Your task to perform on an android device: Clear the shopping cart on costco. Search for "usb-c" on costco, select the first entry, and add it to the cart. Image 0: 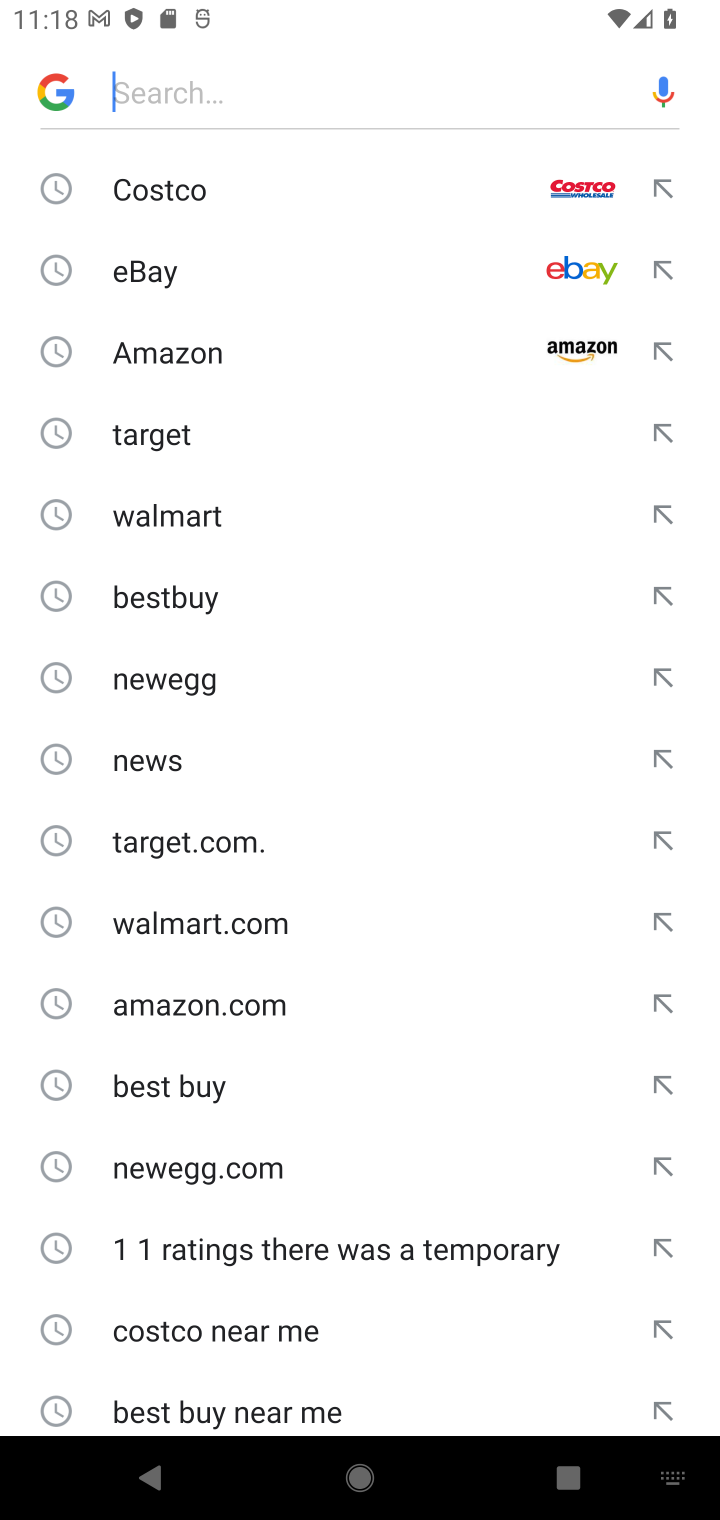
Step 0: type "costco.com"
Your task to perform on an android device: Clear the shopping cart on costco. Search for "usb-c" on costco, select the first entry, and add it to the cart. Image 1: 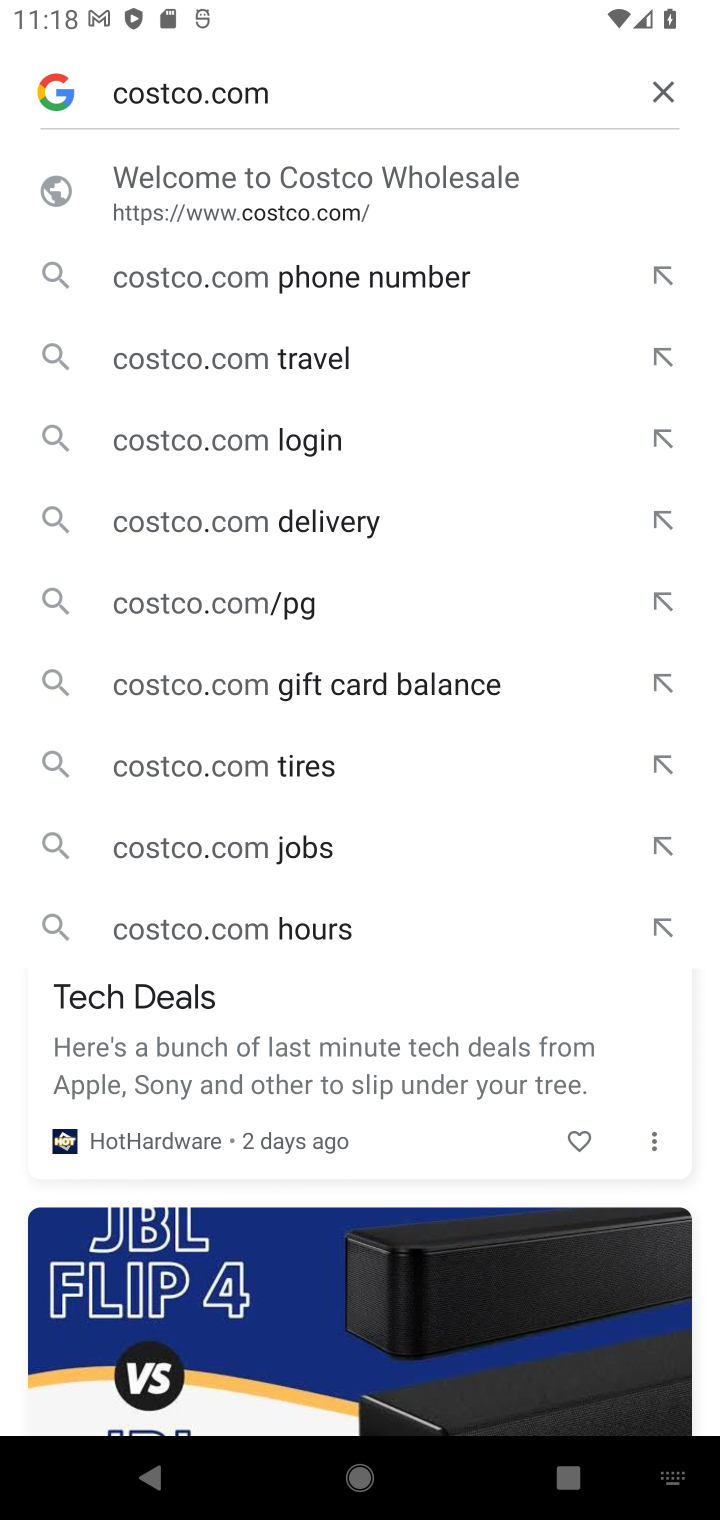
Step 1: click (183, 216)
Your task to perform on an android device: Clear the shopping cart on costco. Search for "usb-c" on costco, select the first entry, and add it to the cart. Image 2: 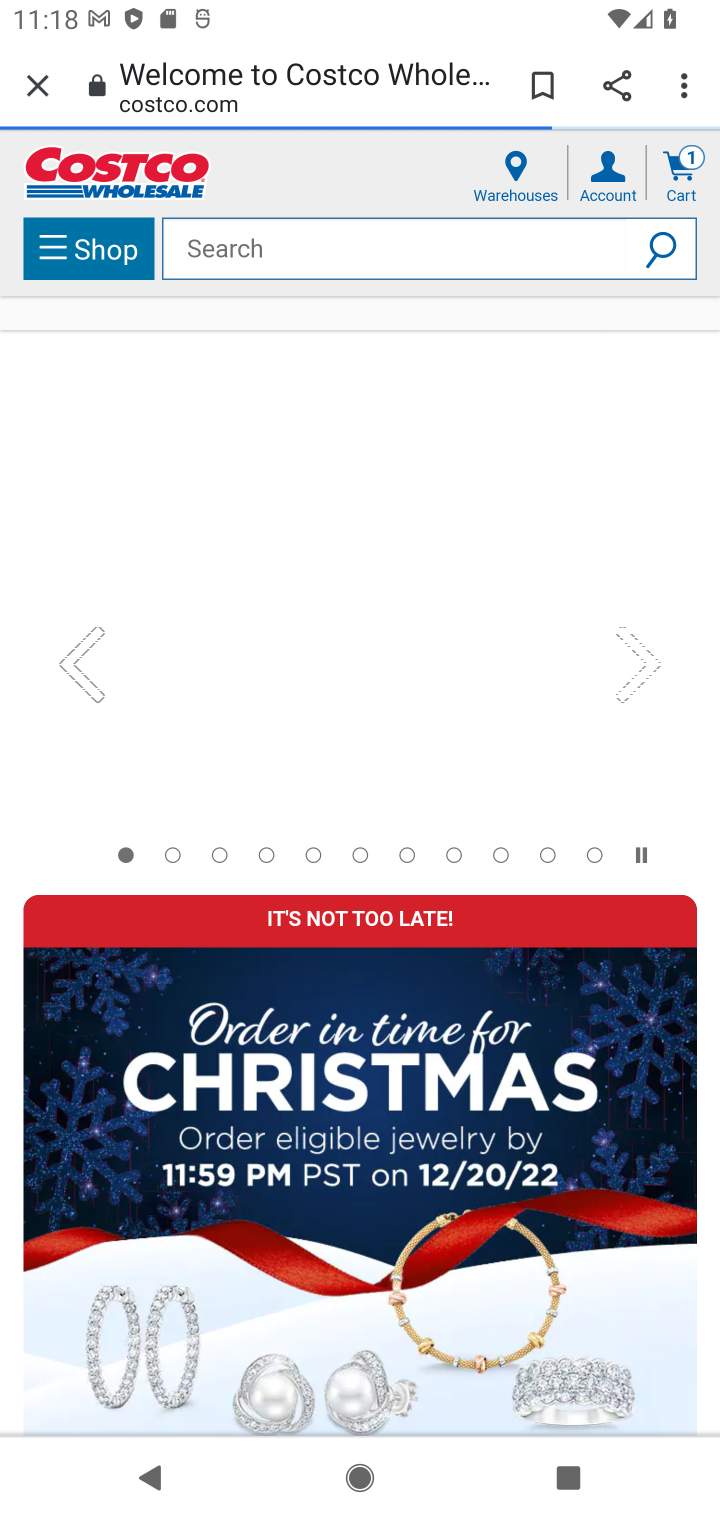
Step 2: click (675, 179)
Your task to perform on an android device: Clear the shopping cart on costco. Search for "usb-c" on costco, select the first entry, and add it to the cart. Image 3: 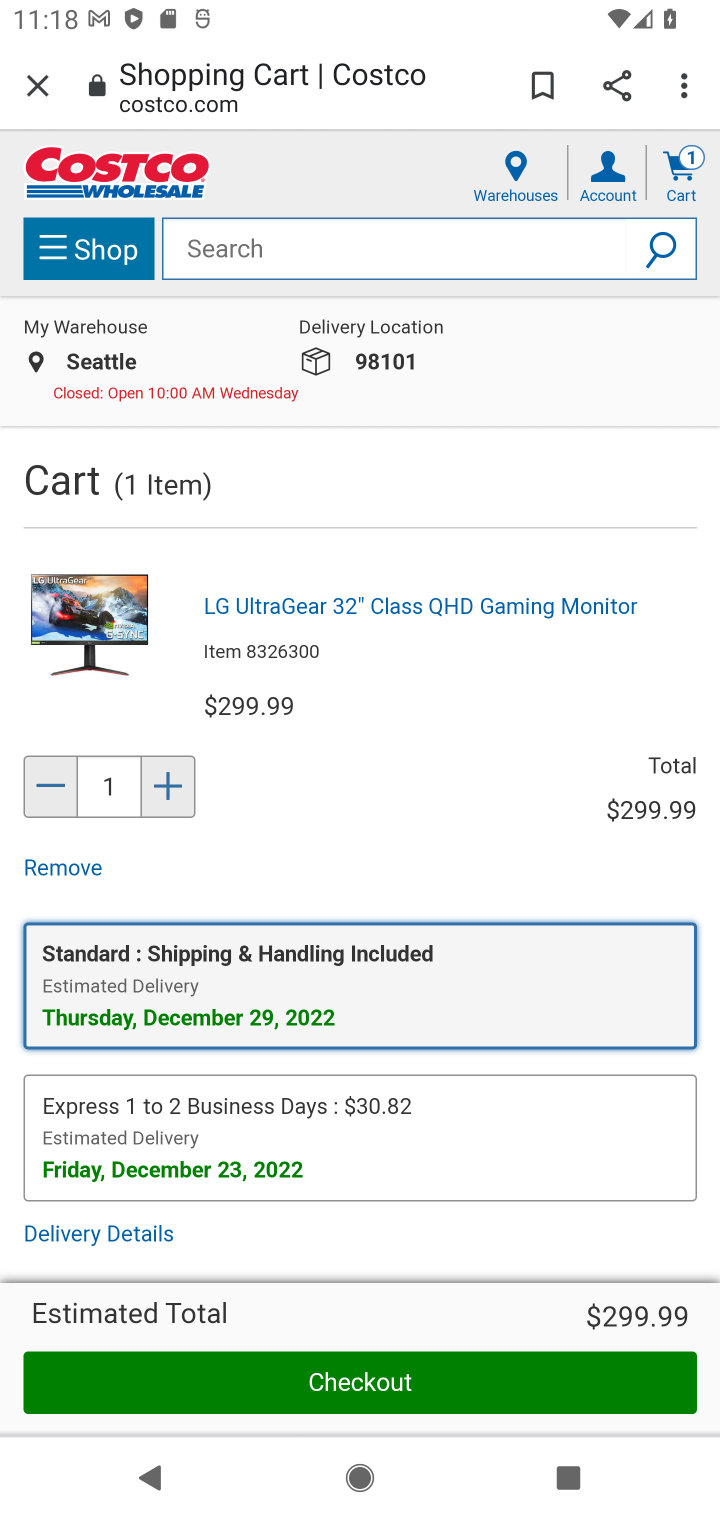
Step 3: drag from (528, 981) to (469, 347)
Your task to perform on an android device: Clear the shopping cart on costco. Search for "usb-c" on costco, select the first entry, and add it to the cart. Image 4: 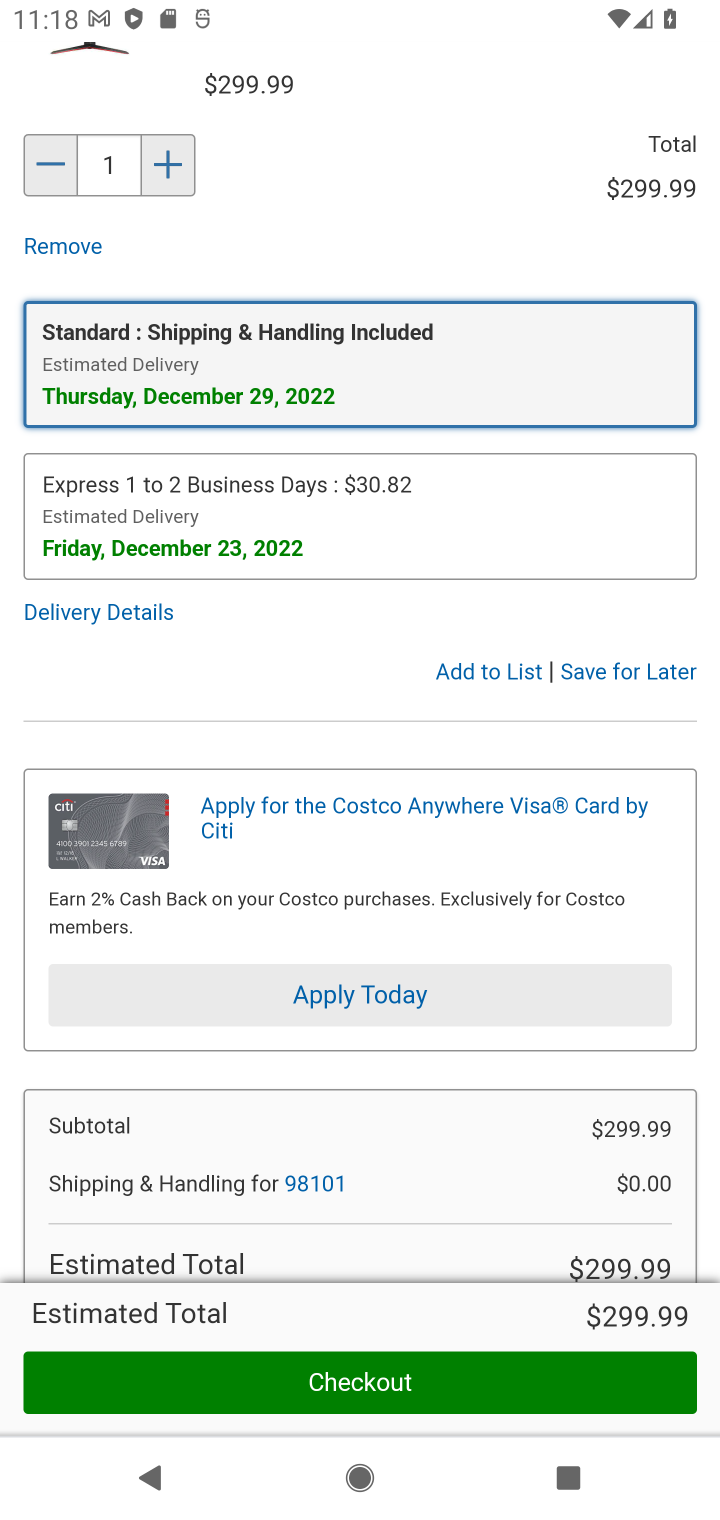
Step 4: click (620, 668)
Your task to perform on an android device: Clear the shopping cart on costco. Search for "usb-c" on costco, select the first entry, and add it to the cart. Image 5: 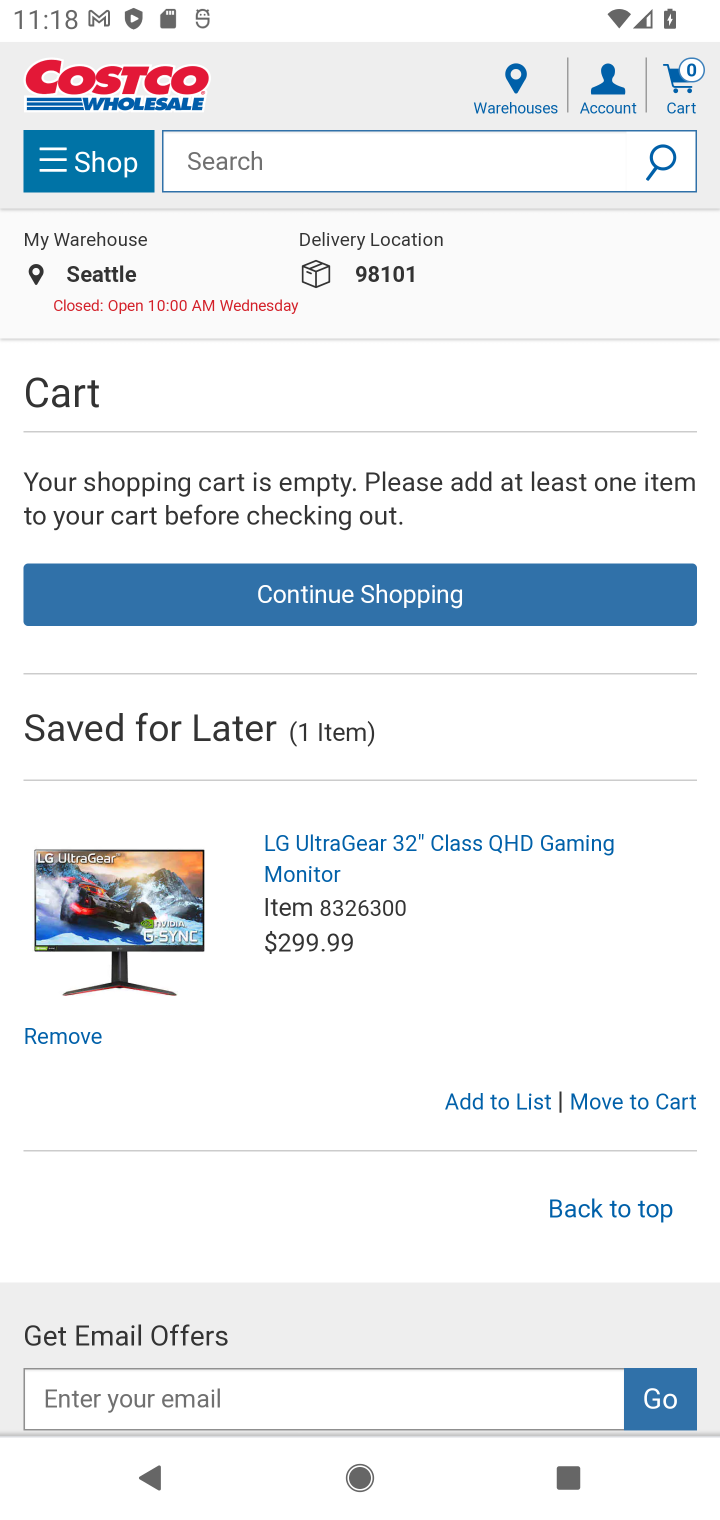
Step 5: click (218, 175)
Your task to perform on an android device: Clear the shopping cart on costco. Search for "usb-c" on costco, select the first entry, and add it to the cart. Image 6: 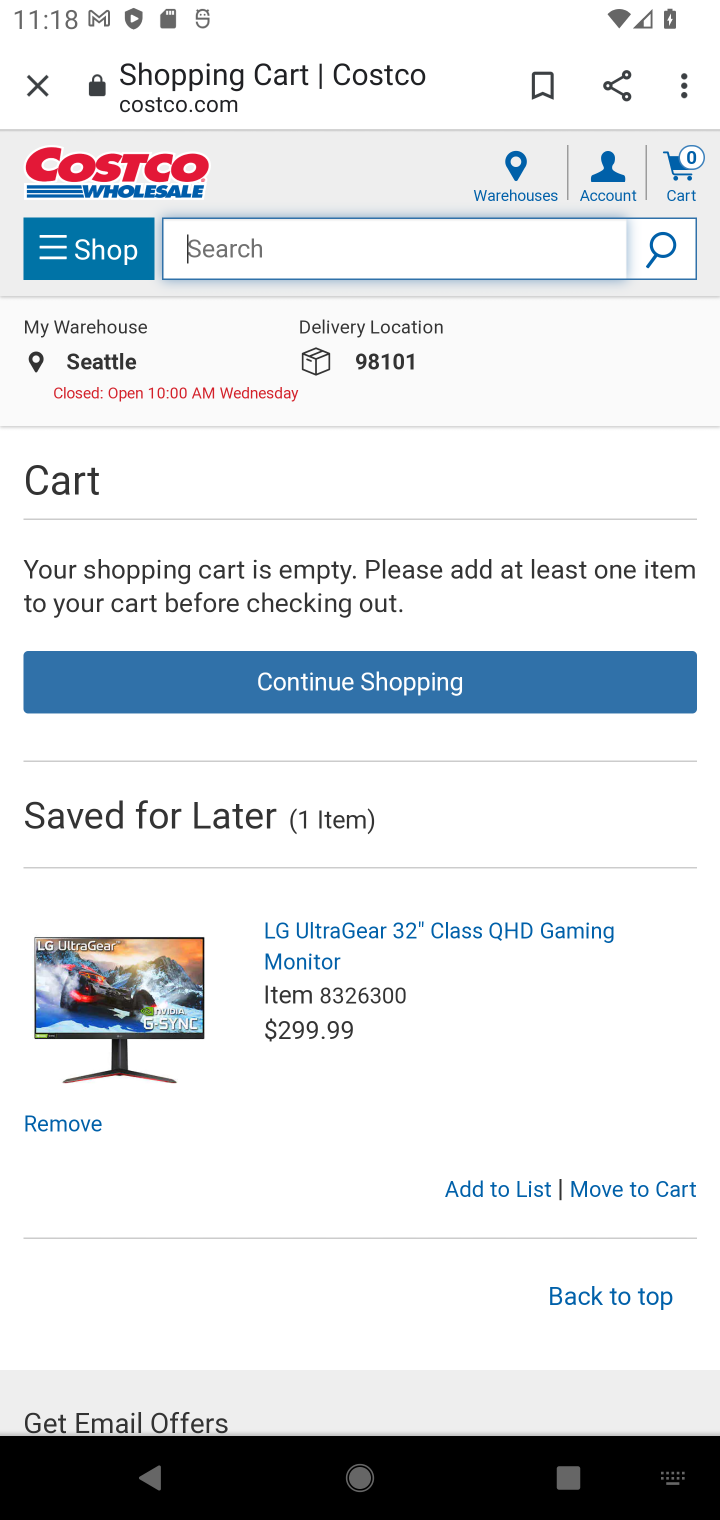
Step 6: type "usb-c"
Your task to perform on an android device: Clear the shopping cart on costco. Search for "usb-c" on costco, select the first entry, and add it to the cart. Image 7: 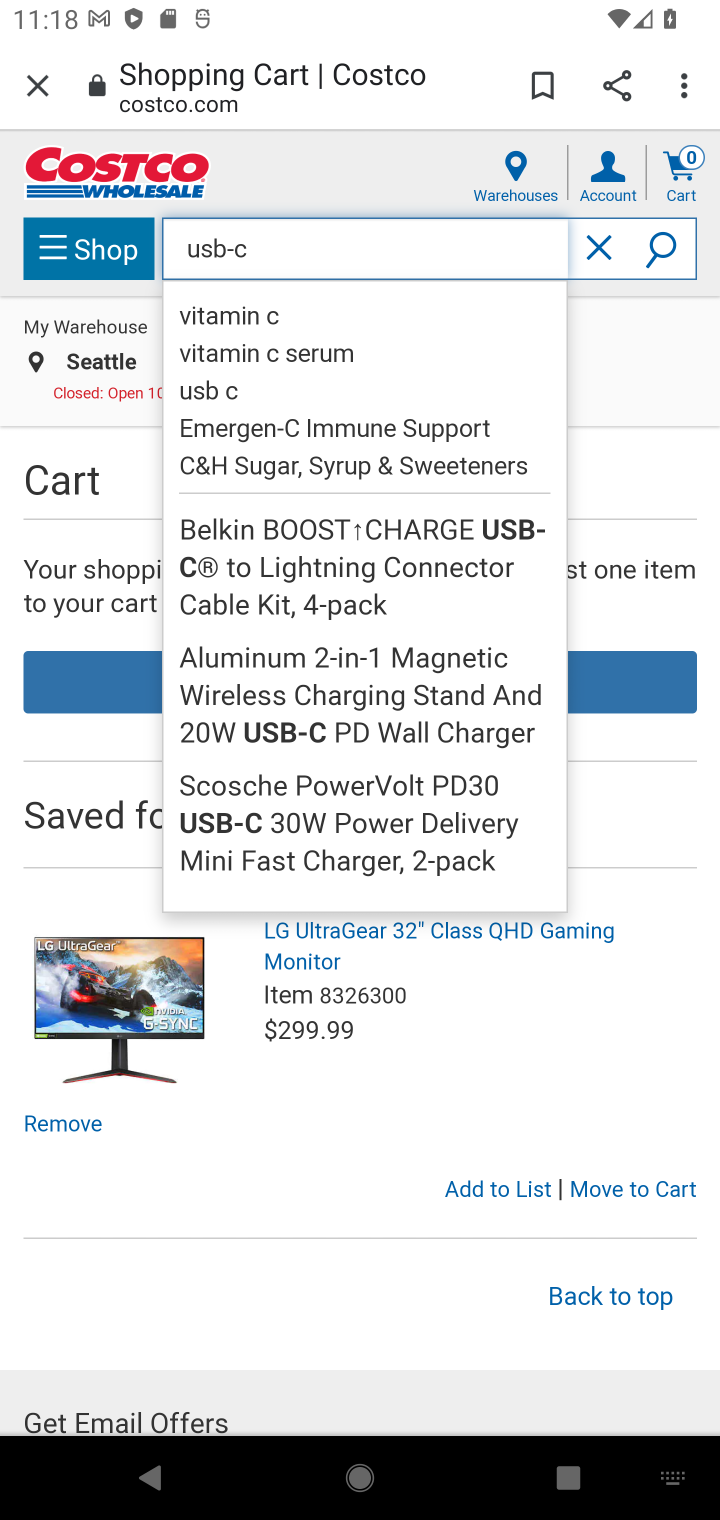
Step 7: click (657, 248)
Your task to perform on an android device: Clear the shopping cart on costco. Search for "usb-c" on costco, select the first entry, and add it to the cart. Image 8: 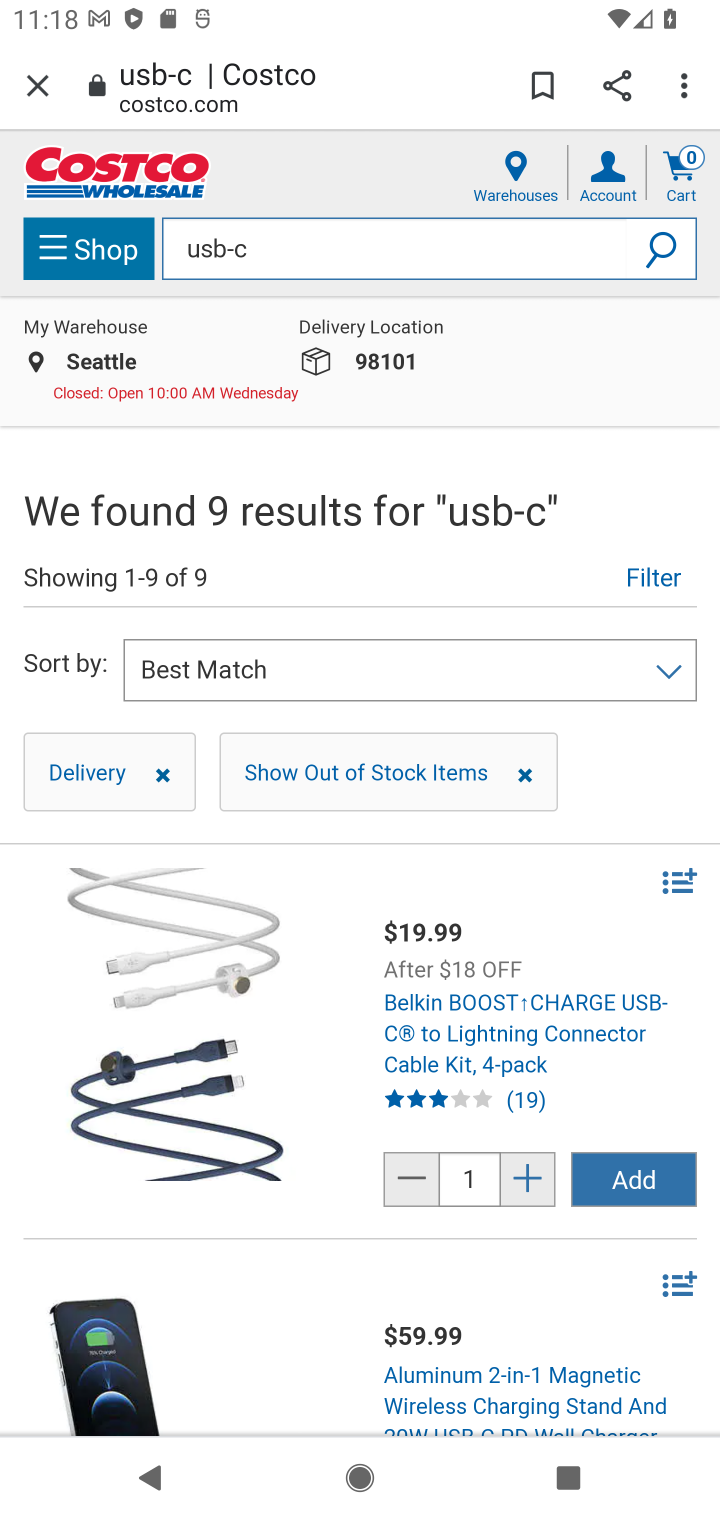
Step 8: click (624, 1195)
Your task to perform on an android device: Clear the shopping cart on costco. Search for "usb-c" on costco, select the first entry, and add it to the cart. Image 9: 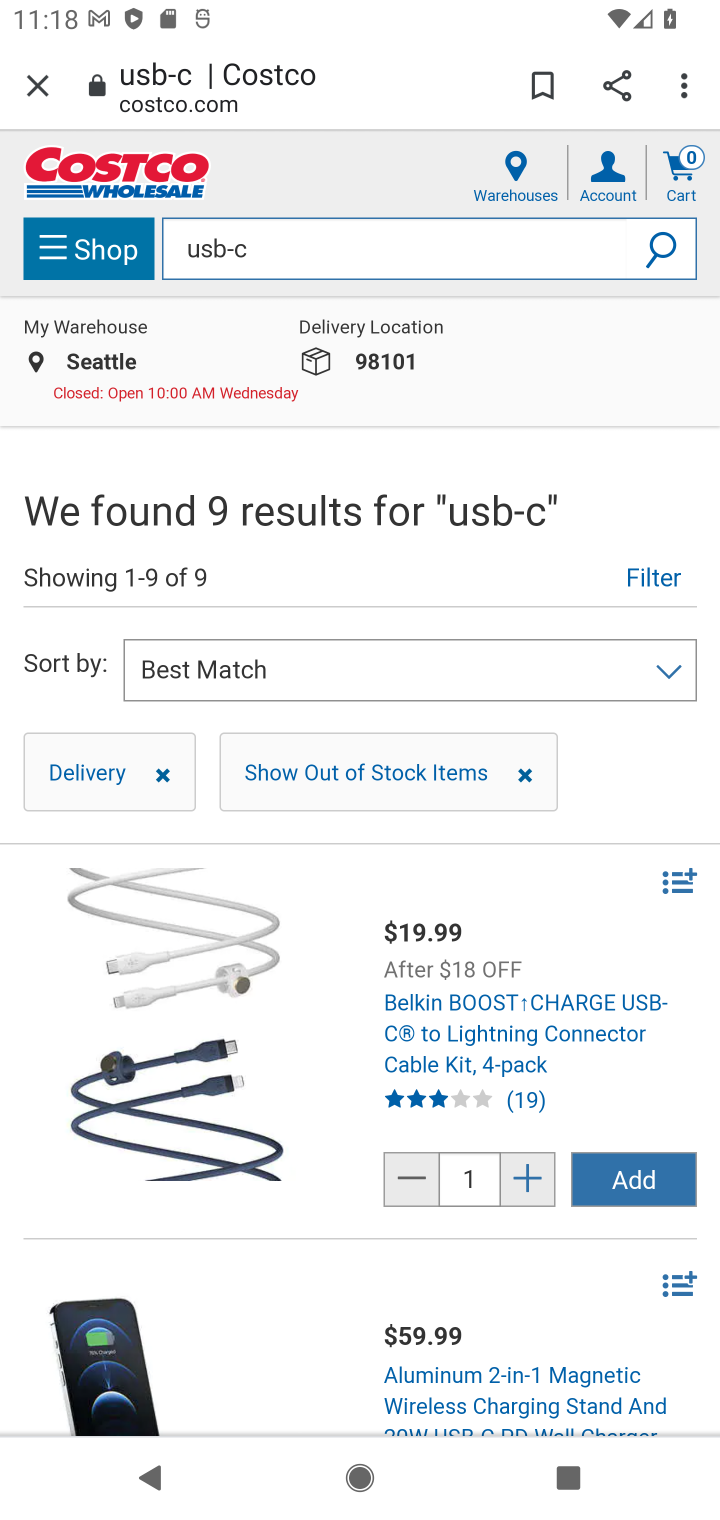
Step 9: click (635, 1186)
Your task to perform on an android device: Clear the shopping cart on costco. Search for "usb-c" on costco, select the first entry, and add it to the cart. Image 10: 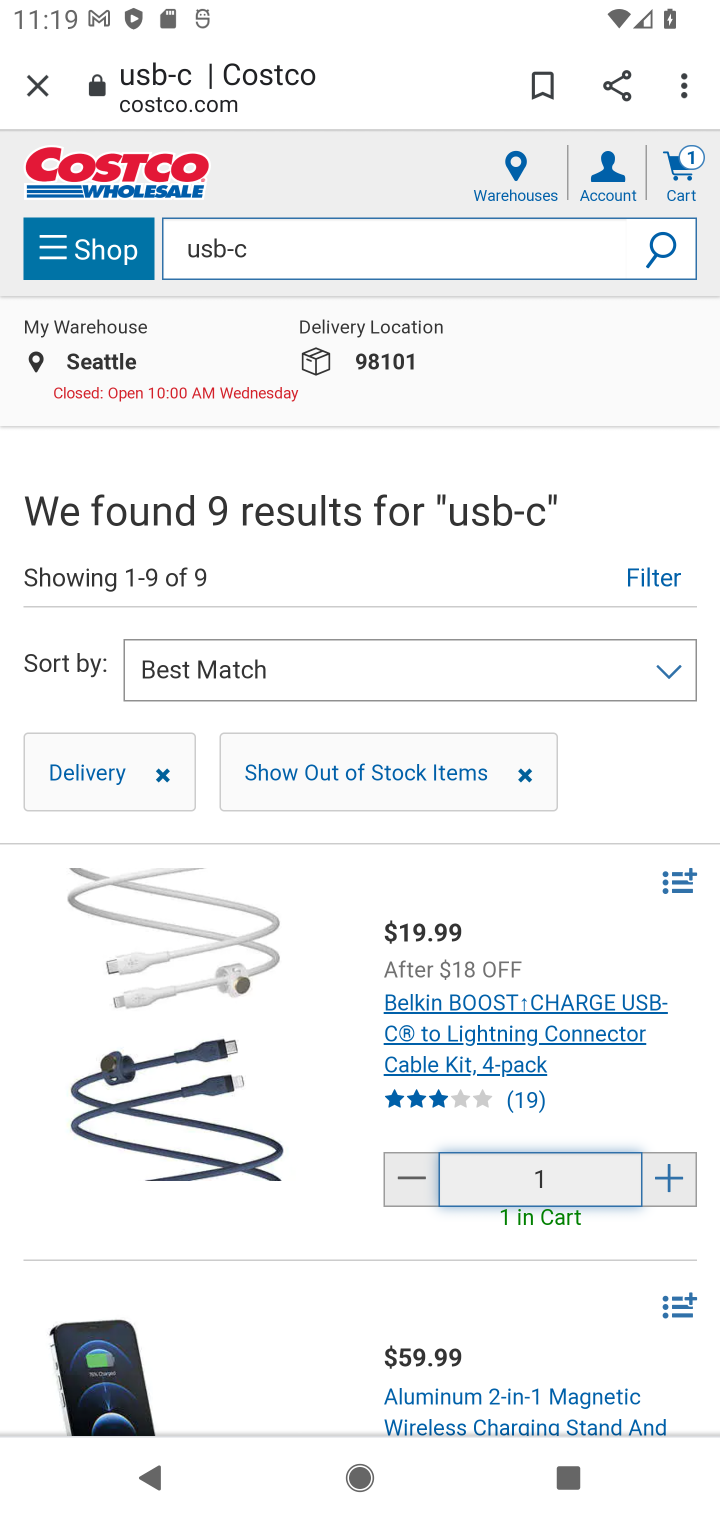
Step 10: task complete